Your task to perform on an android device: Do I have any events this weekend? Image 0: 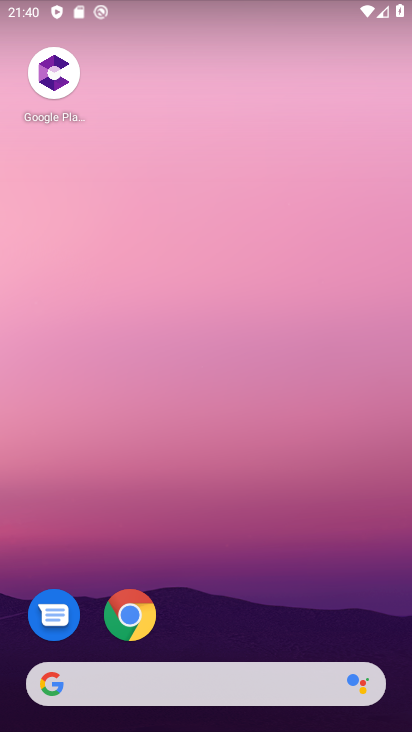
Step 0: drag from (229, 636) to (265, 115)
Your task to perform on an android device: Do I have any events this weekend? Image 1: 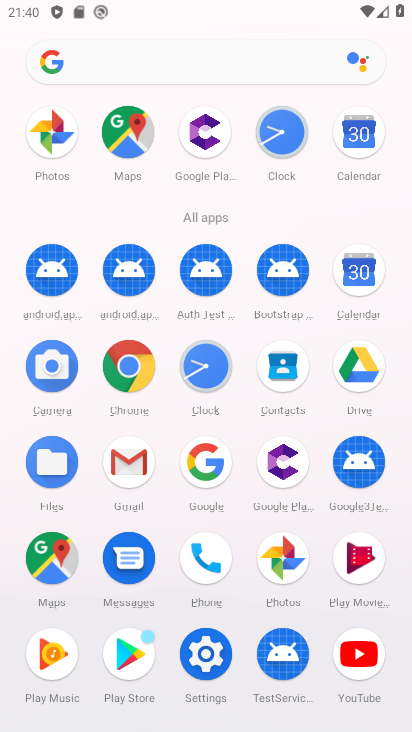
Step 1: click (346, 286)
Your task to perform on an android device: Do I have any events this weekend? Image 2: 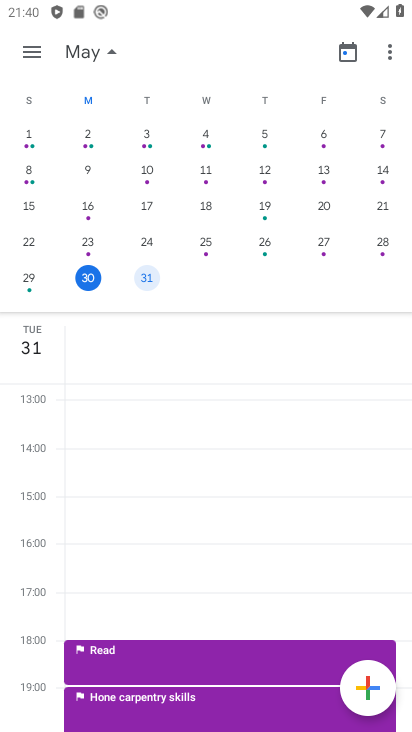
Step 2: click (38, 61)
Your task to perform on an android device: Do I have any events this weekend? Image 3: 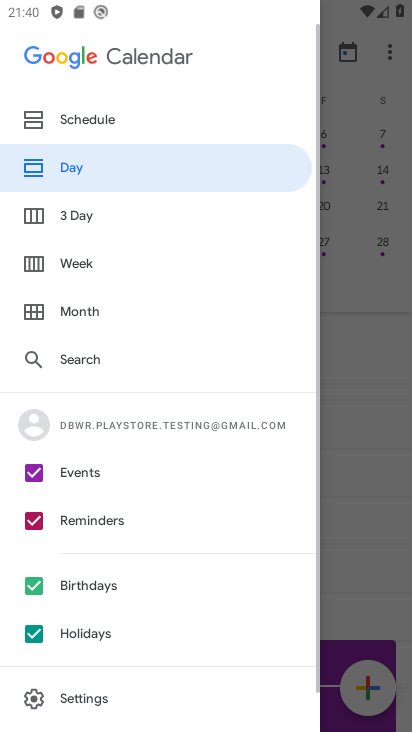
Step 3: click (101, 267)
Your task to perform on an android device: Do I have any events this weekend? Image 4: 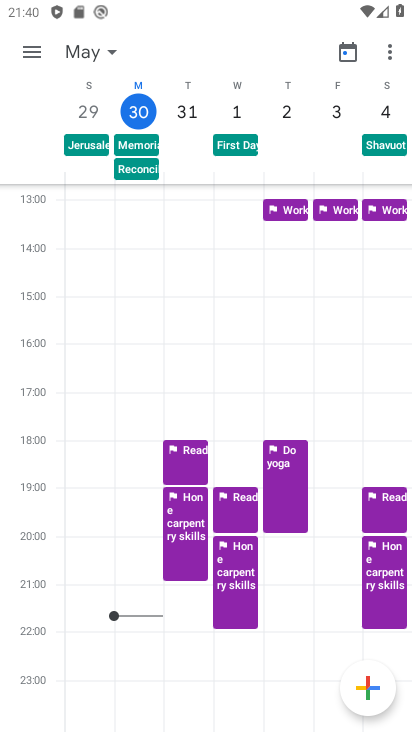
Step 4: click (384, 111)
Your task to perform on an android device: Do I have any events this weekend? Image 5: 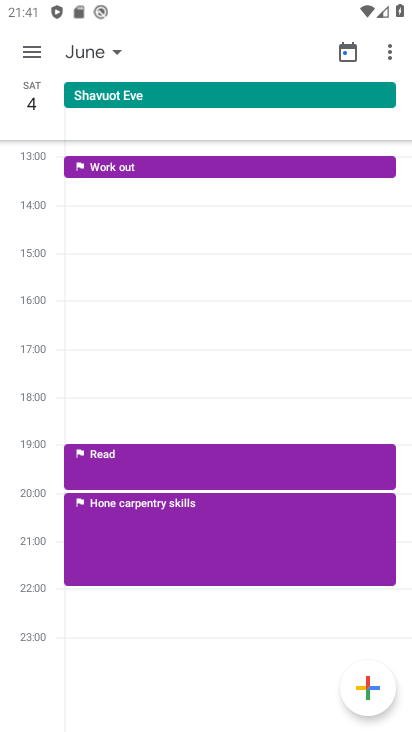
Step 5: task complete